Your task to perform on an android device: Go to battery settings Image 0: 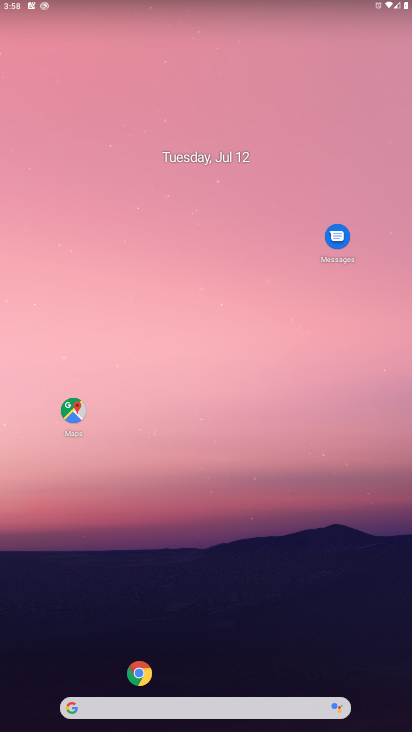
Step 0: drag from (16, 689) to (222, 144)
Your task to perform on an android device: Go to battery settings Image 1: 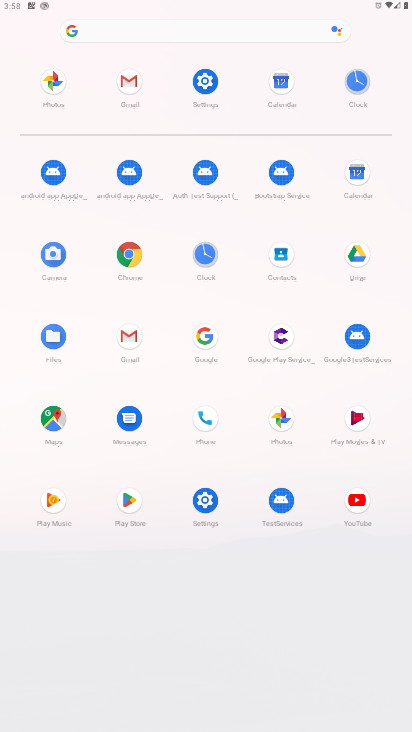
Step 1: click (206, 515)
Your task to perform on an android device: Go to battery settings Image 2: 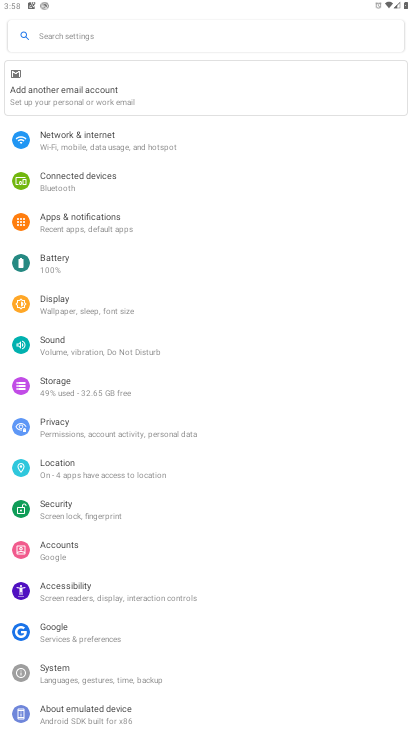
Step 2: click (44, 264)
Your task to perform on an android device: Go to battery settings Image 3: 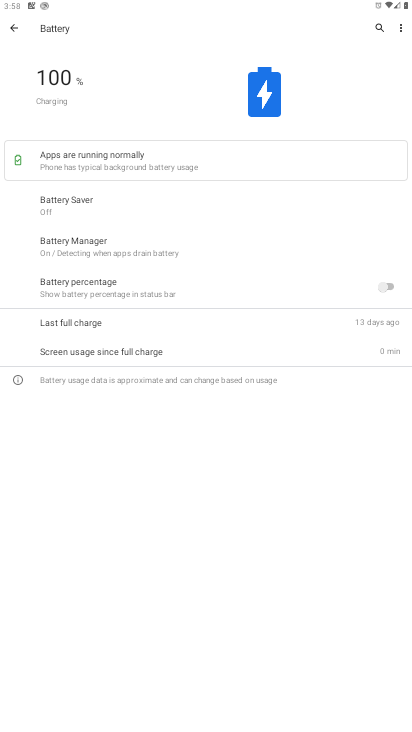
Step 3: task complete